Your task to perform on an android device: Look up the top rated headphones on Amazon. Image 0: 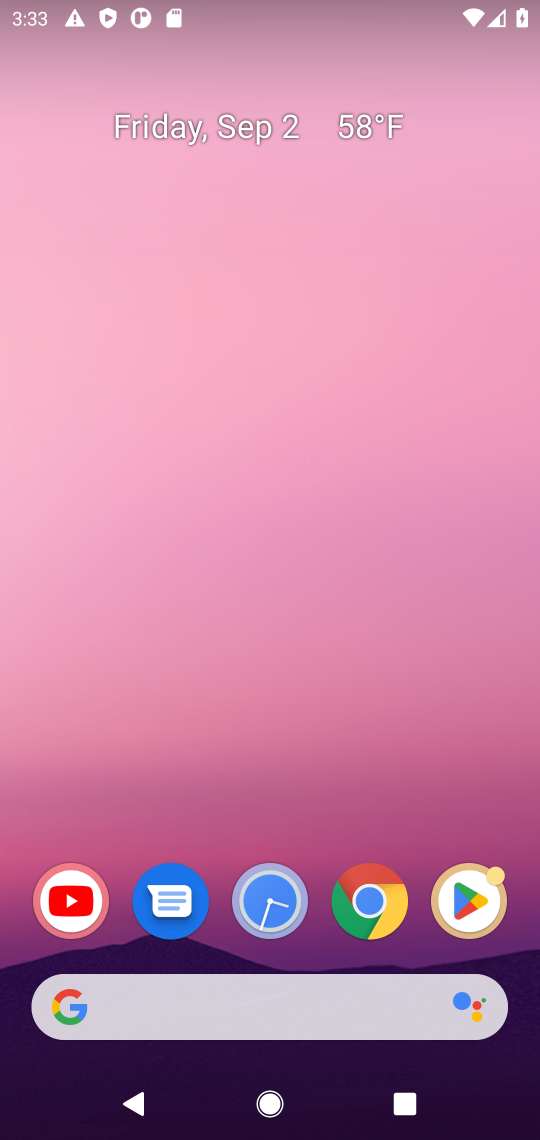
Step 0: drag from (428, 808) to (159, 63)
Your task to perform on an android device: Look up the top rated headphones on Amazon. Image 1: 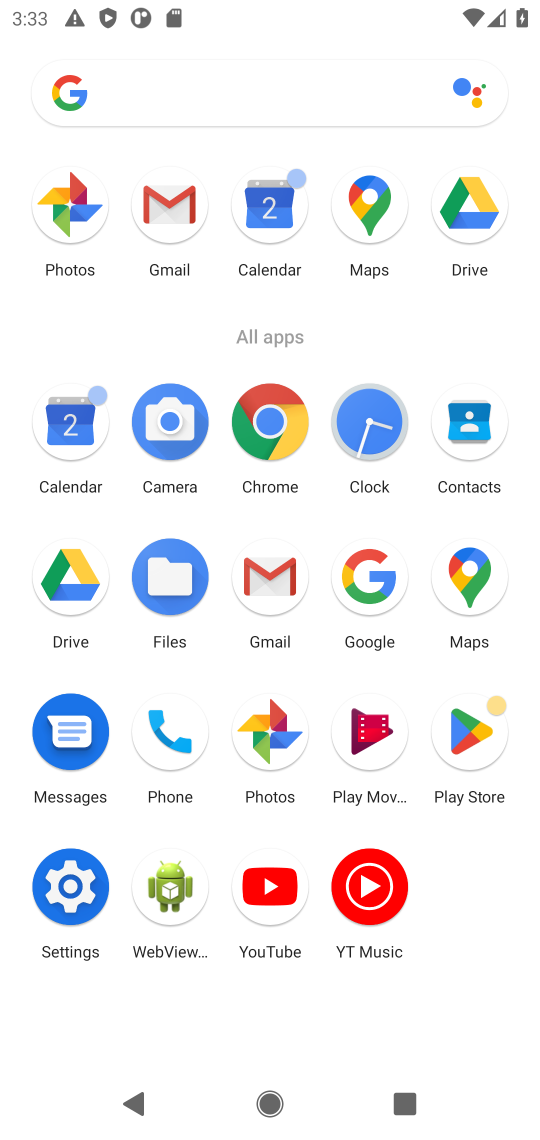
Step 1: click (390, 639)
Your task to perform on an android device: Look up the top rated headphones on Amazon. Image 2: 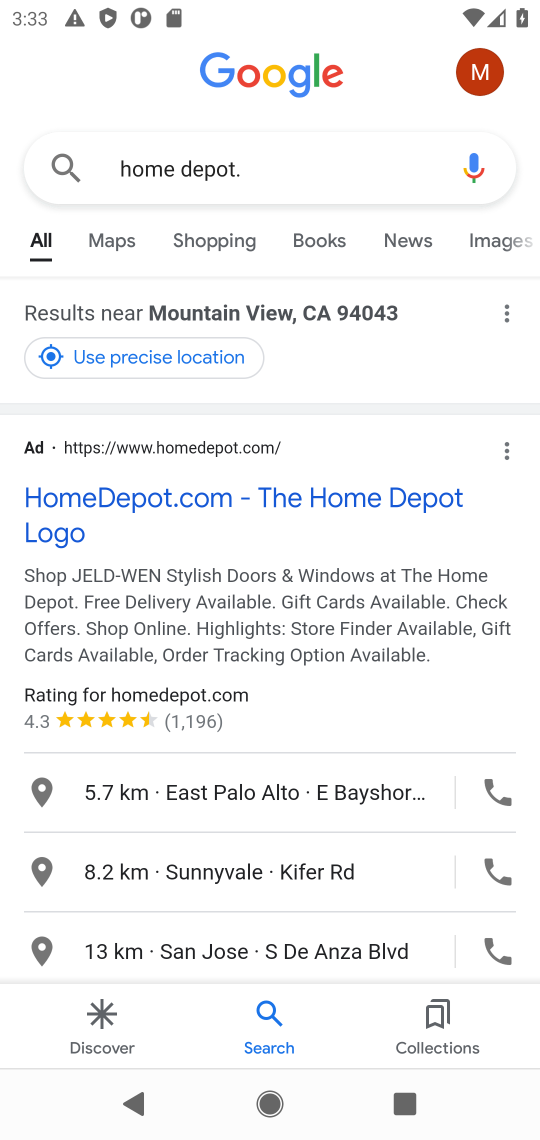
Step 2: press back button
Your task to perform on an android device: Look up the top rated headphones on Amazon. Image 3: 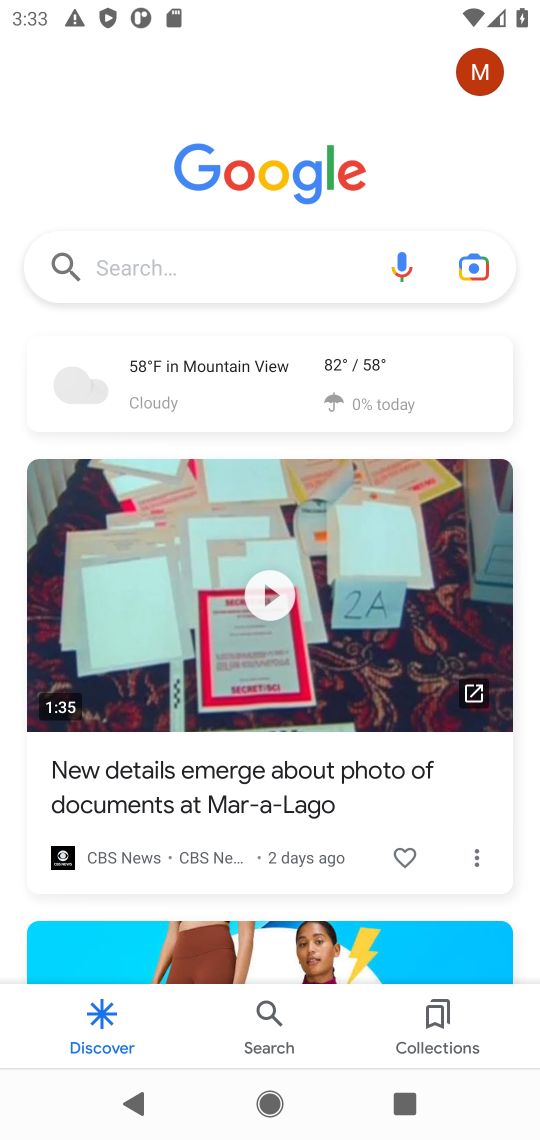
Step 3: click (186, 270)
Your task to perform on an android device: Look up the top rated headphones on Amazon. Image 4: 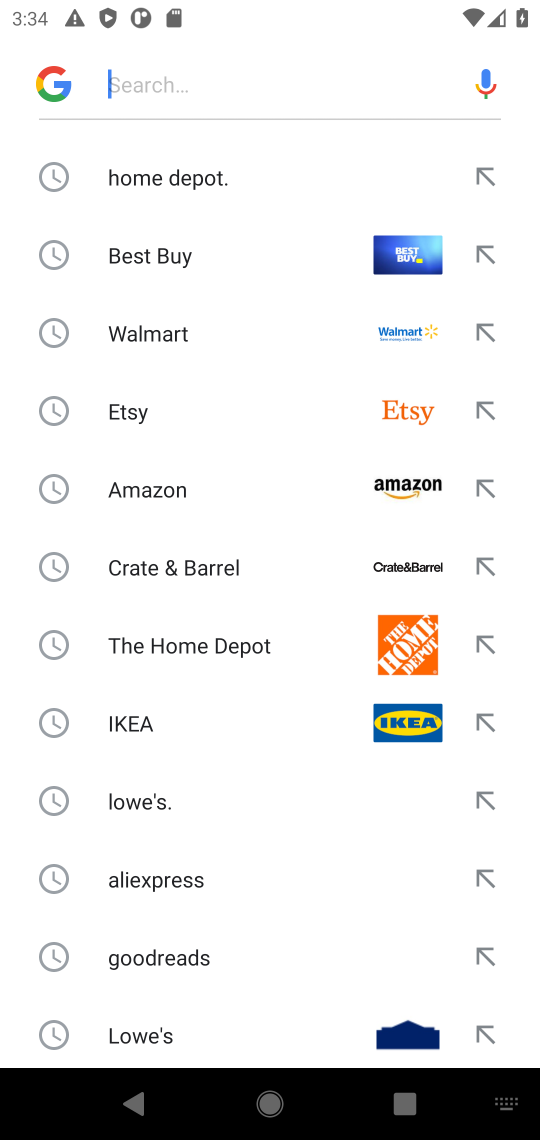
Step 4: type "Amazon"
Your task to perform on an android device: Look up the top rated headphones on Amazon. Image 5: 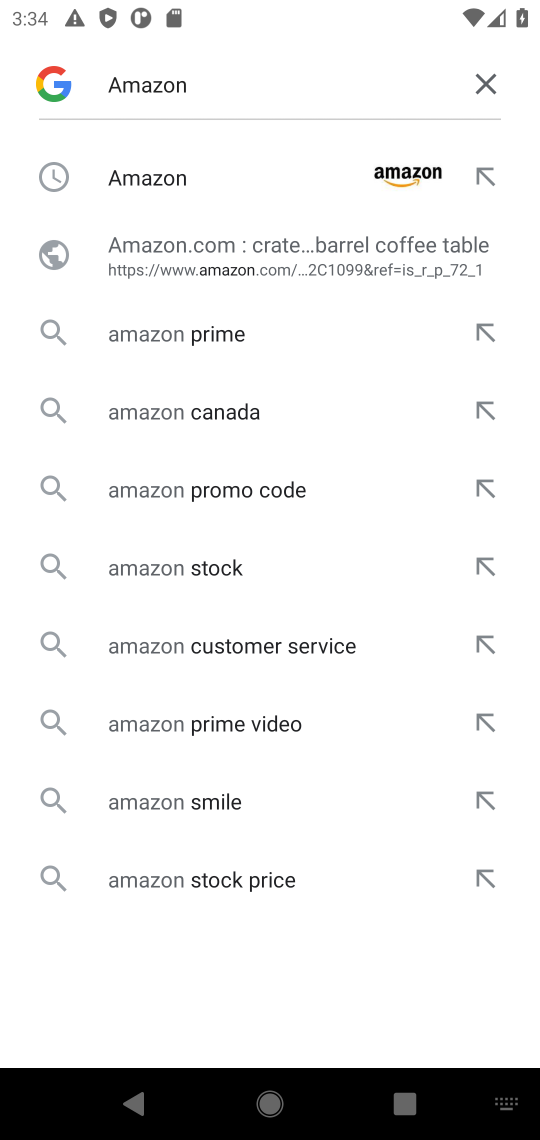
Step 5: click (216, 181)
Your task to perform on an android device: Look up the top rated headphones on Amazon. Image 6: 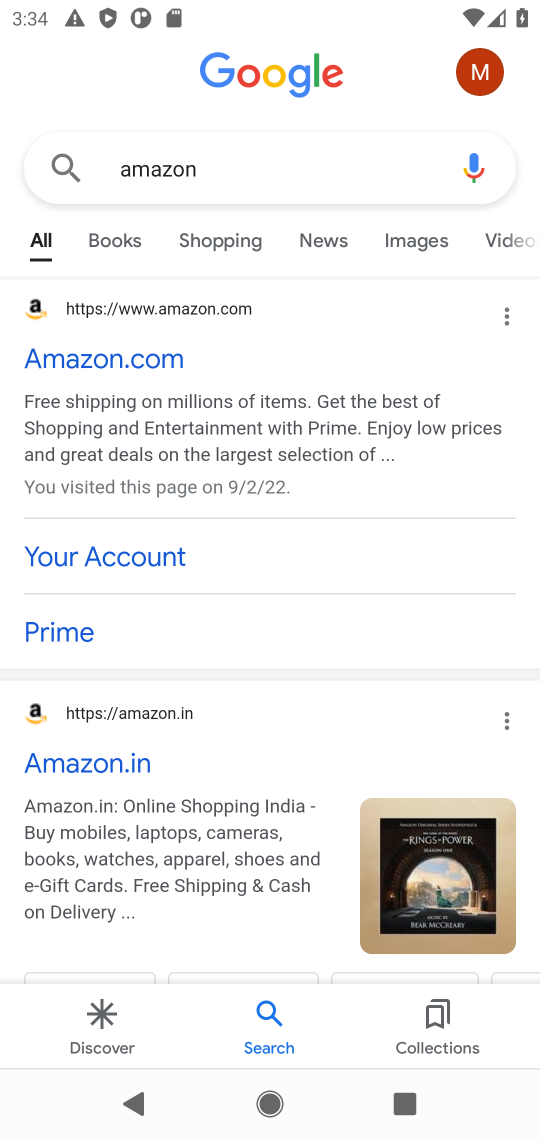
Step 6: click (118, 411)
Your task to perform on an android device: Look up the top rated headphones on Amazon. Image 7: 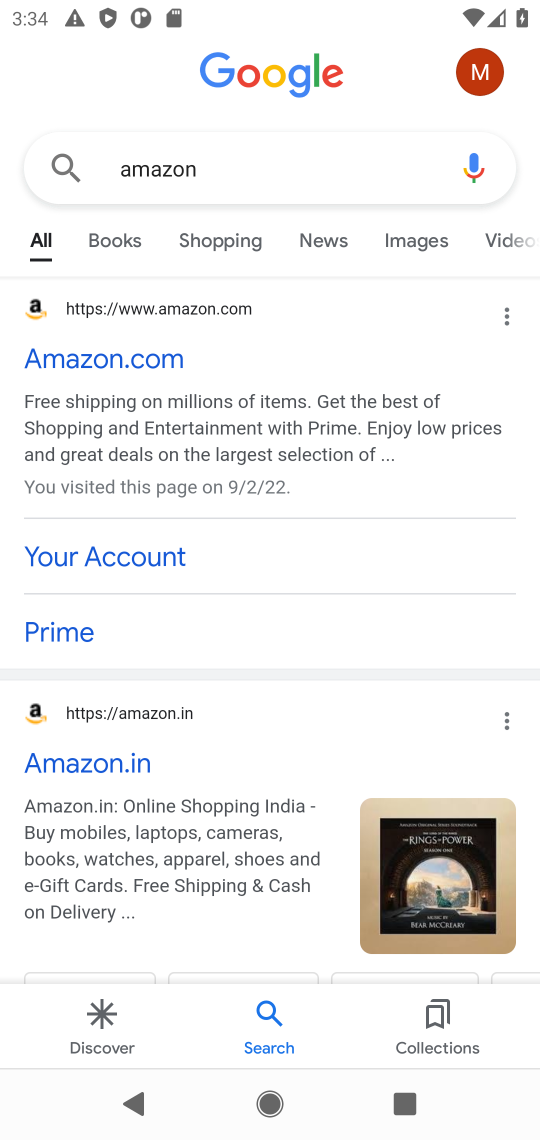
Step 7: click (124, 377)
Your task to perform on an android device: Look up the top rated headphones on Amazon. Image 8: 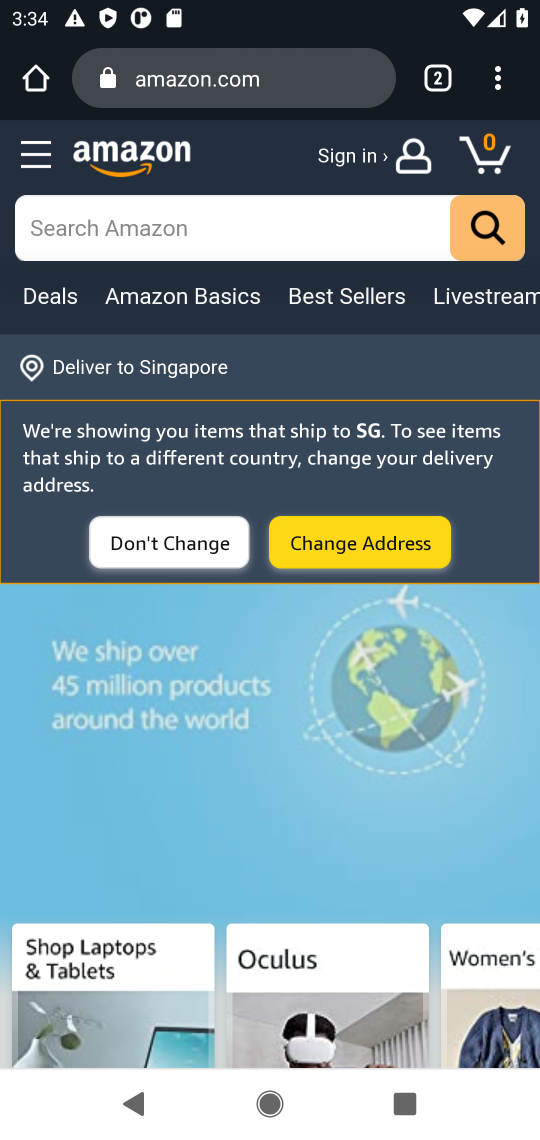
Step 8: click (133, 213)
Your task to perform on an android device: Look up the top rated headphones on Amazon. Image 9: 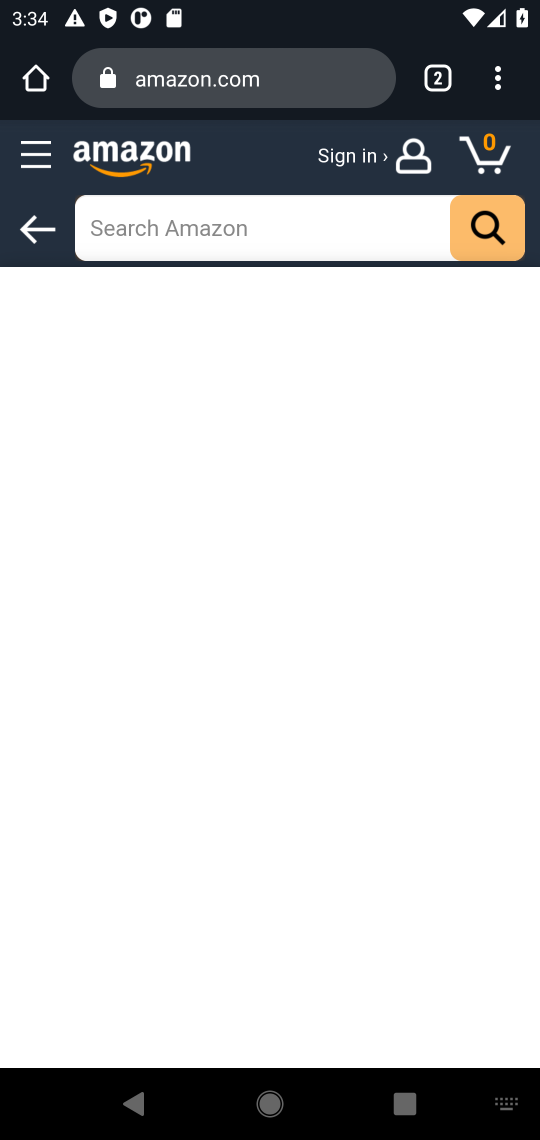
Step 9: type "headphones"
Your task to perform on an android device: Look up the top rated headphones on Amazon. Image 10: 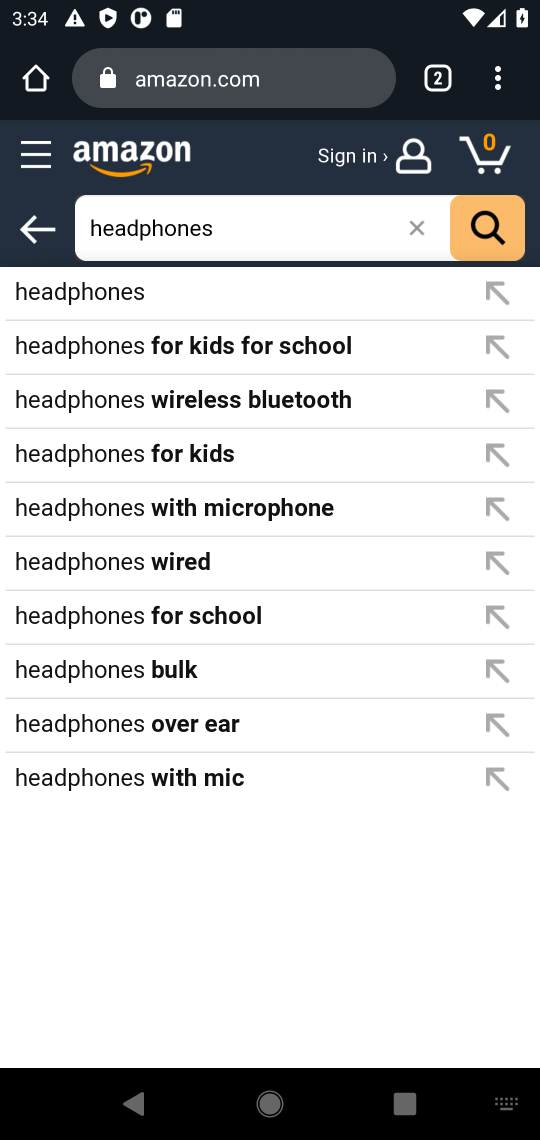
Step 10: click (461, 234)
Your task to perform on an android device: Look up the top rated headphones on Amazon. Image 11: 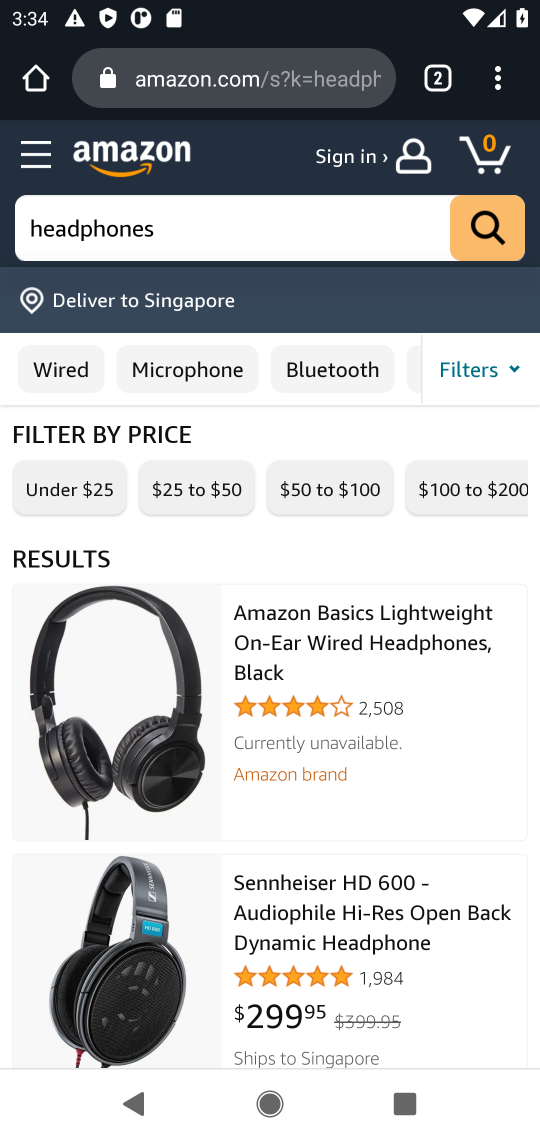
Step 11: task complete